Your task to perform on an android device: open app "ZOOM Cloud Meetings" (install if not already installed) and enter user name: "bauxite@icloud.com" and password: "dim" Image 0: 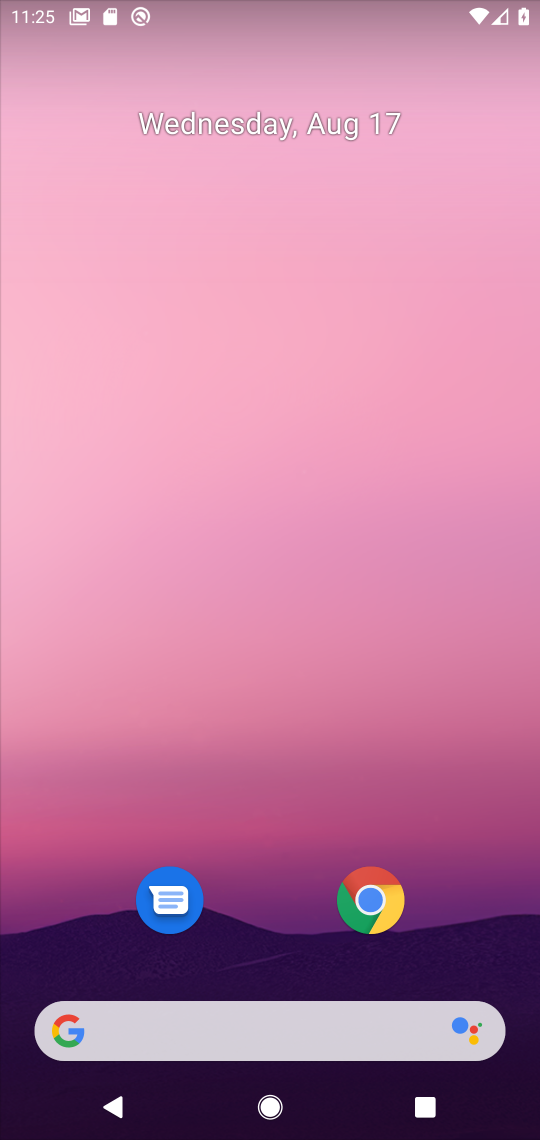
Step 0: drag from (270, 945) to (275, 120)
Your task to perform on an android device: open app "ZOOM Cloud Meetings" (install if not already installed) and enter user name: "bauxite@icloud.com" and password: "dim" Image 1: 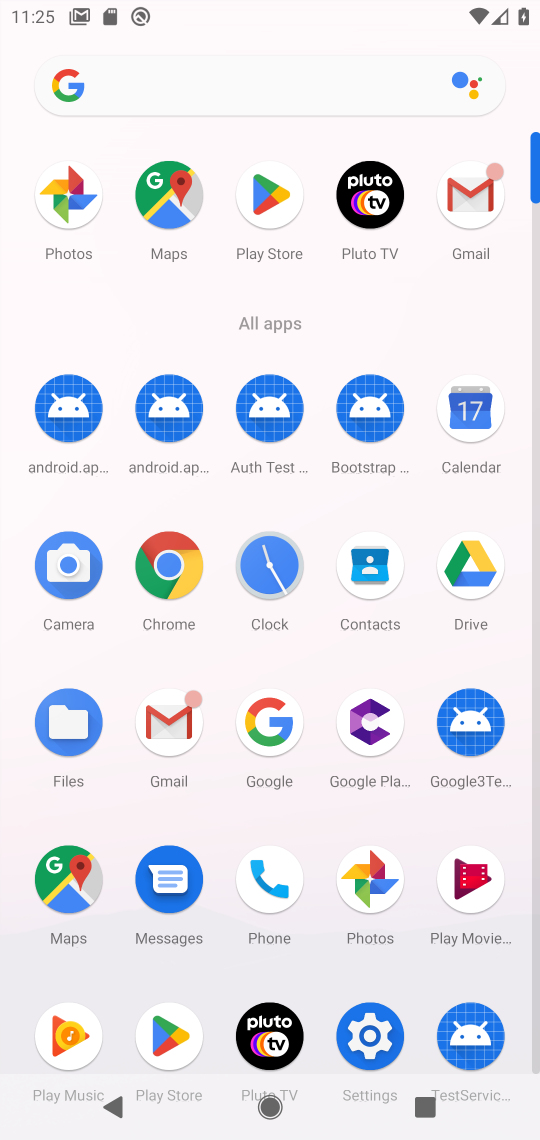
Step 1: click (253, 194)
Your task to perform on an android device: open app "ZOOM Cloud Meetings" (install if not already installed) and enter user name: "bauxite@icloud.com" and password: "dim" Image 2: 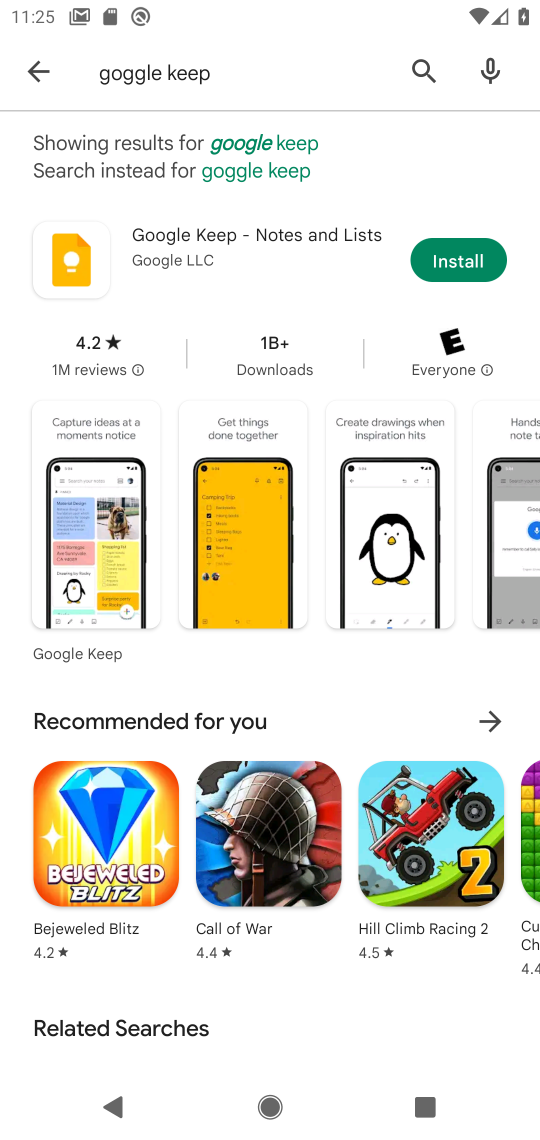
Step 2: click (436, 78)
Your task to perform on an android device: open app "ZOOM Cloud Meetings" (install if not already installed) and enter user name: "bauxite@icloud.com" and password: "dim" Image 3: 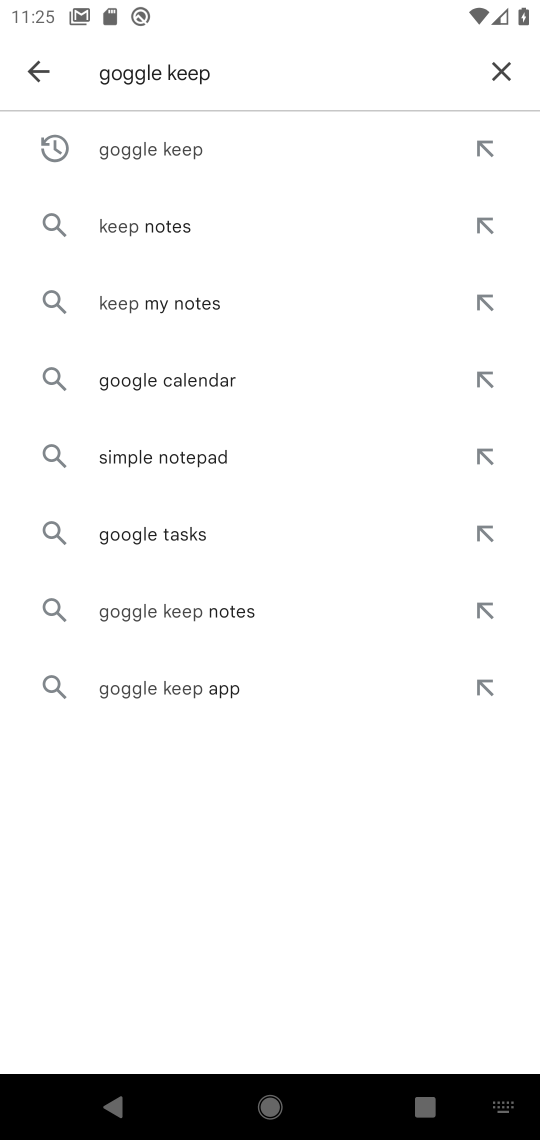
Step 3: click (500, 68)
Your task to perform on an android device: open app "ZOOM Cloud Meetings" (install if not already installed) and enter user name: "bauxite@icloud.com" and password: "dim" Image 4: 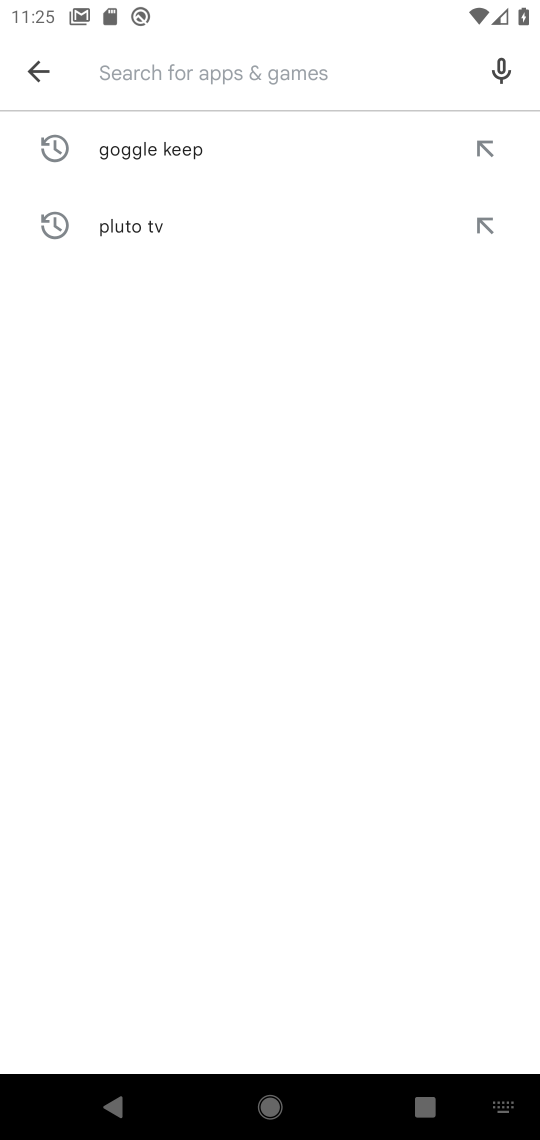
Step 4: click (234, 83)
Your task to perform on an android device: open app "ZOOM Cloud Meetings" (install if not already installed) and enter user name: "bauxite@icloud.com" and password: "dim" Image 5: 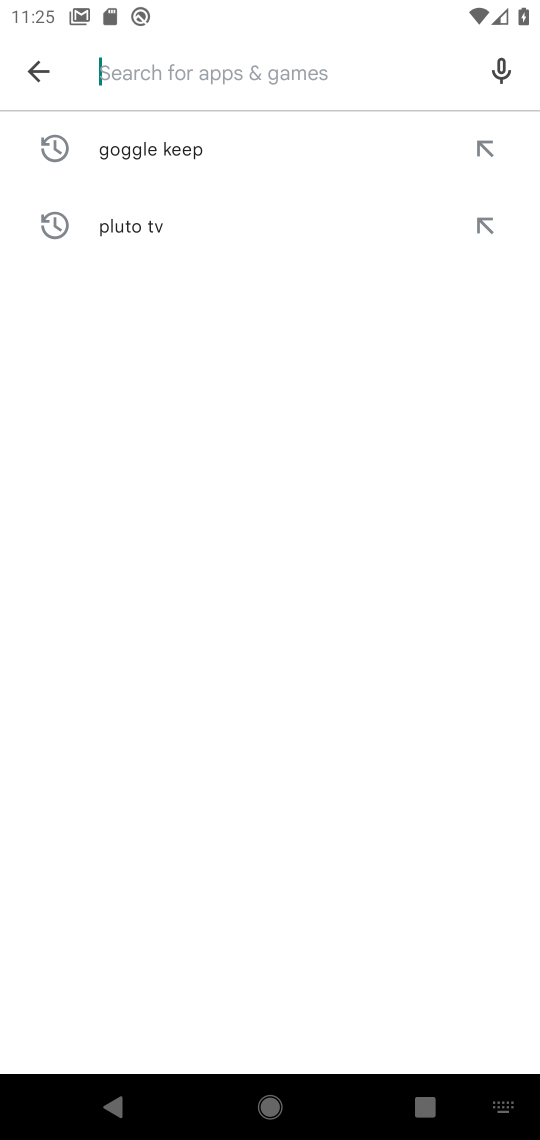
Step 5: type "zoom"
Your task to perform on an android device: open app "ZOOM Cloud Meetings" (install if not already installed) and enter user name: "bauxite@icloud.com" and password: "dim" Image 6: 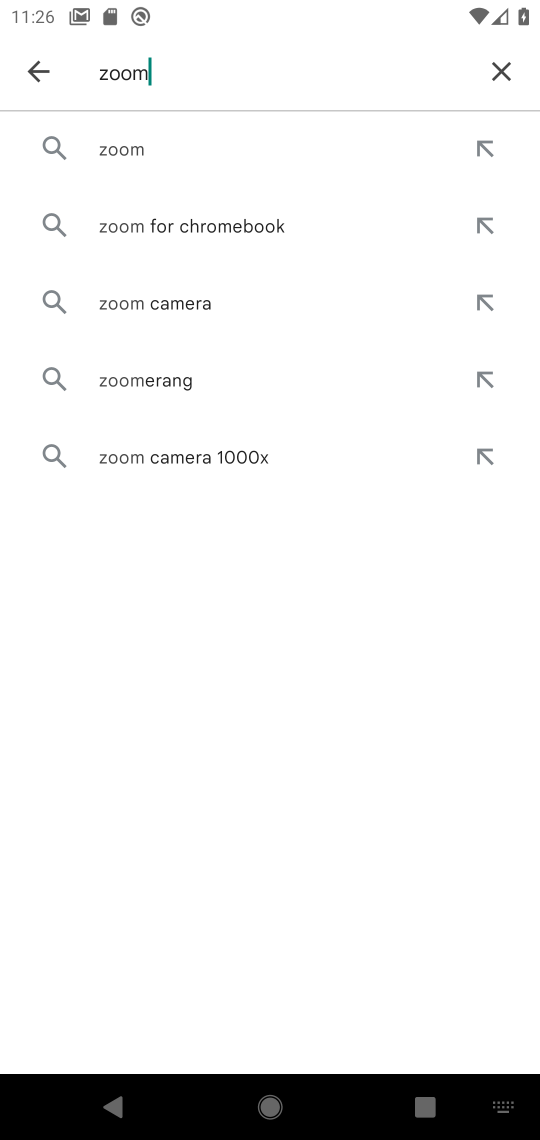
Step 6: click (144, 153)
Your task to perform on an android device: open app "ZOOM Cloud Meetings" (install if not already installed) and enter user name: "bauxite@icloud.com" and password: "dim" Image 7: 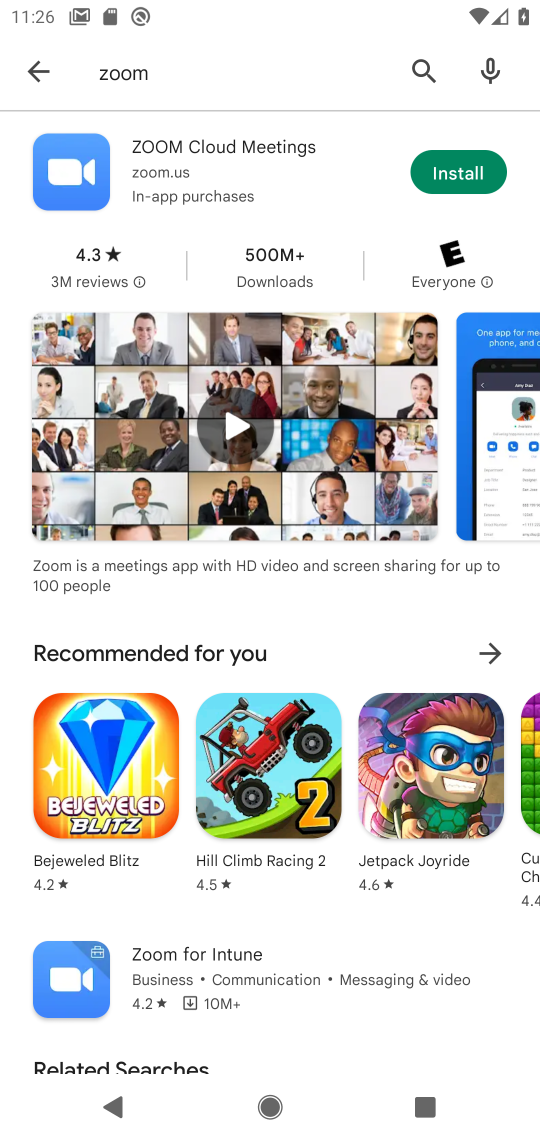
Step 7: click (460, 167)
Your task to perform on an android device: open app "ZOOM Cloud Meetings" (install if not already installed) and enter user name: "bauxite@icloud.com" and password: "dim" Image 8: 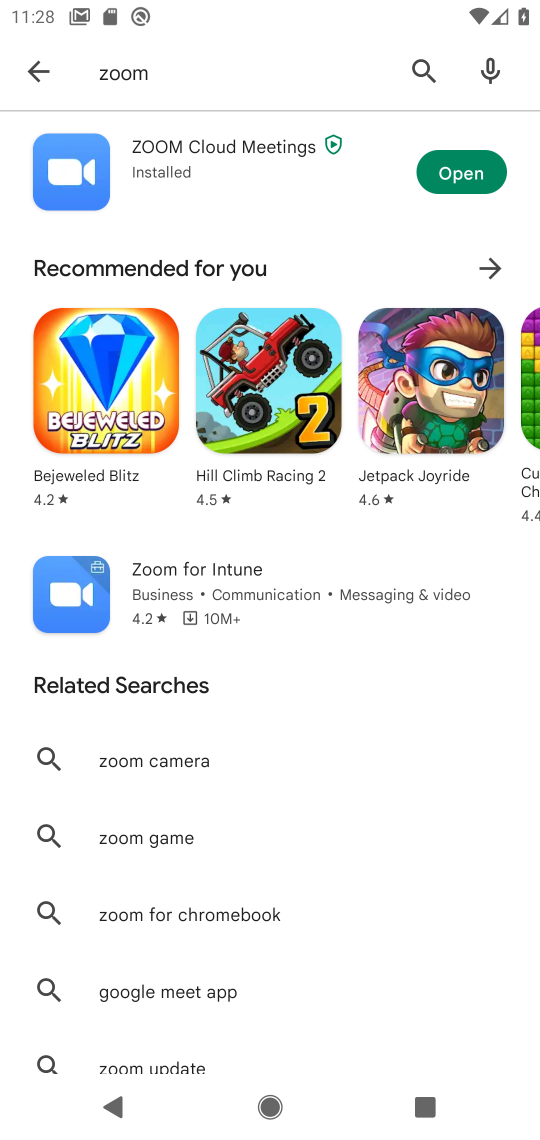
Step 8: click (473, 157)
Your task to perform on an android device: open app "ZOOM Cloud Meetings" (install if not already installed) and enter user name: "bauxite@icloud.com" and password: "dim" Image 9: 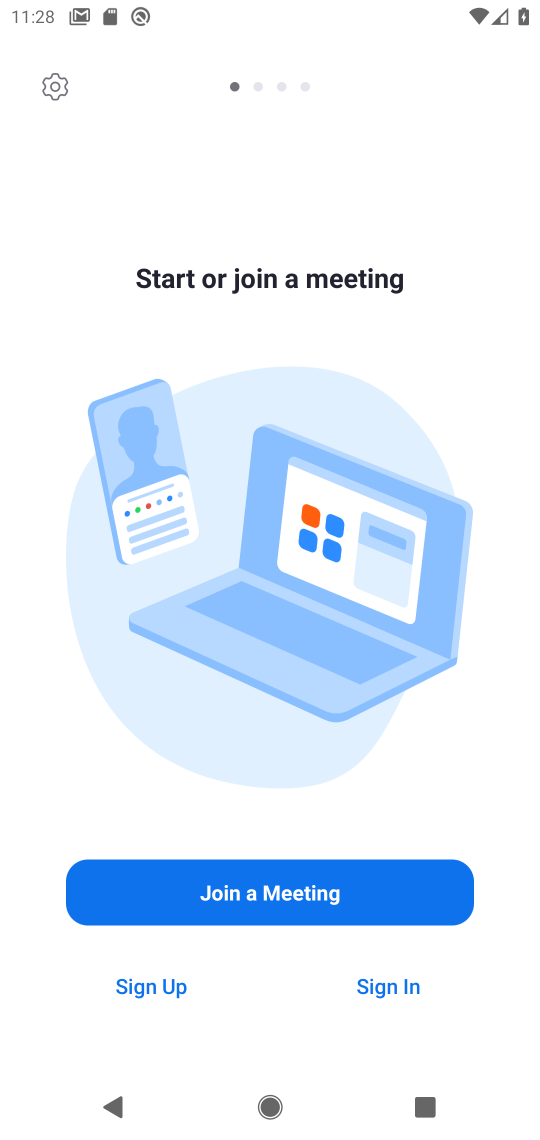
Step 9: click (375, 979)
Your task to perform on an android device: open app "ZOOM Cloud Meetings" (install if not already installed) and enter user name: "bauxite@icloud.com" and password: "dim" Image 10: 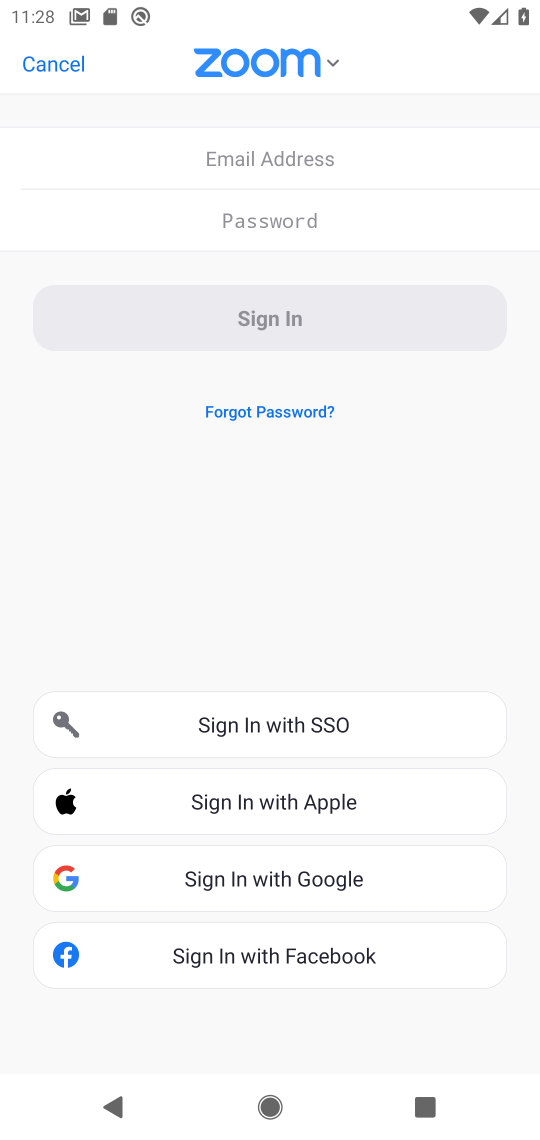
Step 10: click (276, 157)
Your task to perform on an android device: open app "ZOOM Cloud Meetings" (install if not already installed) and enter user name: "bauxite@icloud.com" and password: "dim" Image 11: 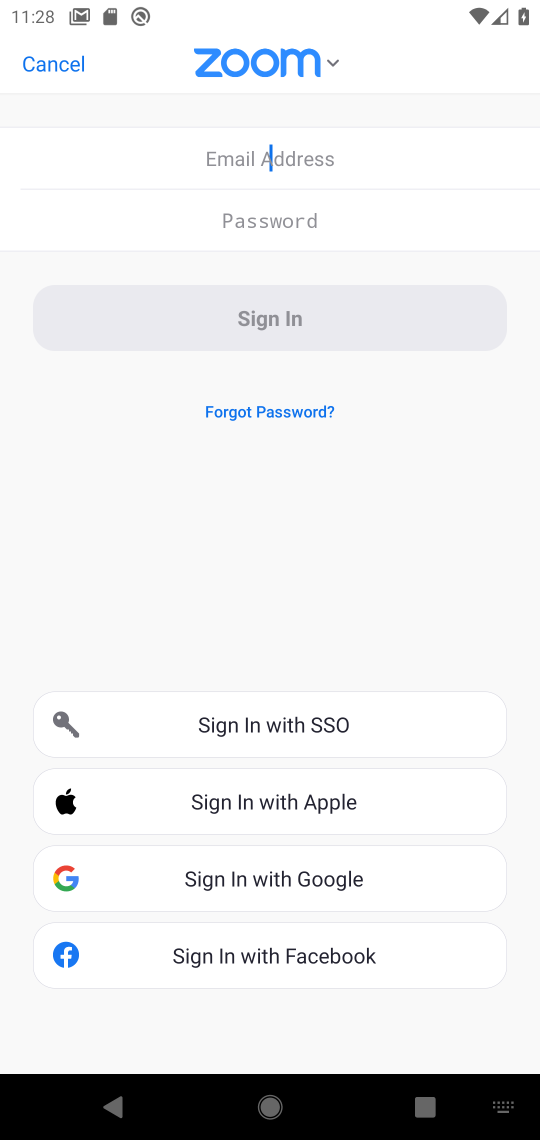
Step 11: click (254, 149)
Your task to perform on an android device: open app "ZOOM Cloud Meetings" (install if not already installed) and enter user name: "bauxite@icloud.com" and password: "dim" Image 12: 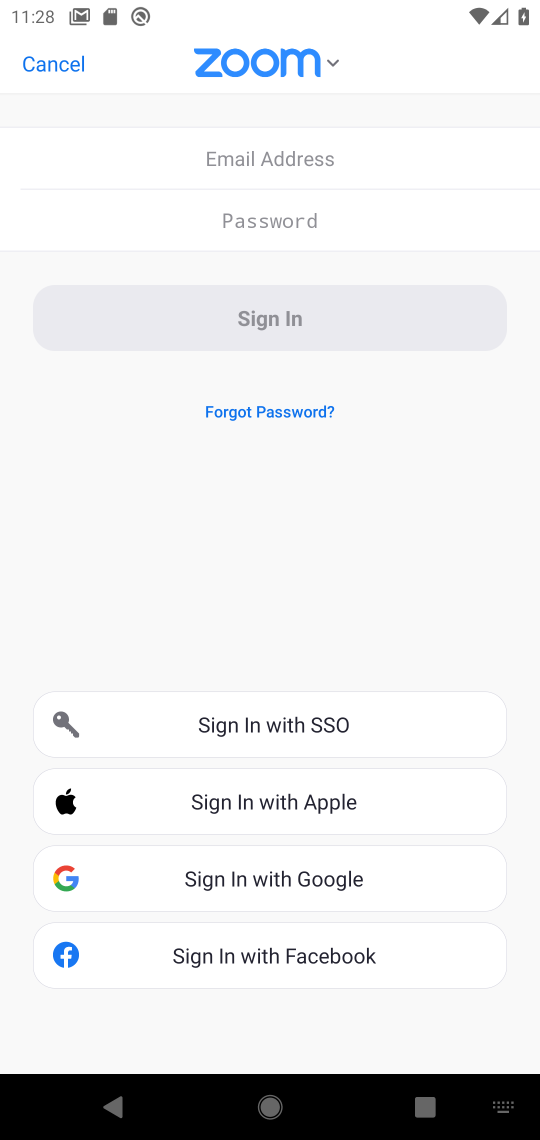
Step 12: type "bauxite@icloud.com"
Your task to perform on an android device: open app "ZOOM Cloud Meetings" (install if not already installed) and enter user name: "bauxite@icloud.com" and password: "dim" Image 13: 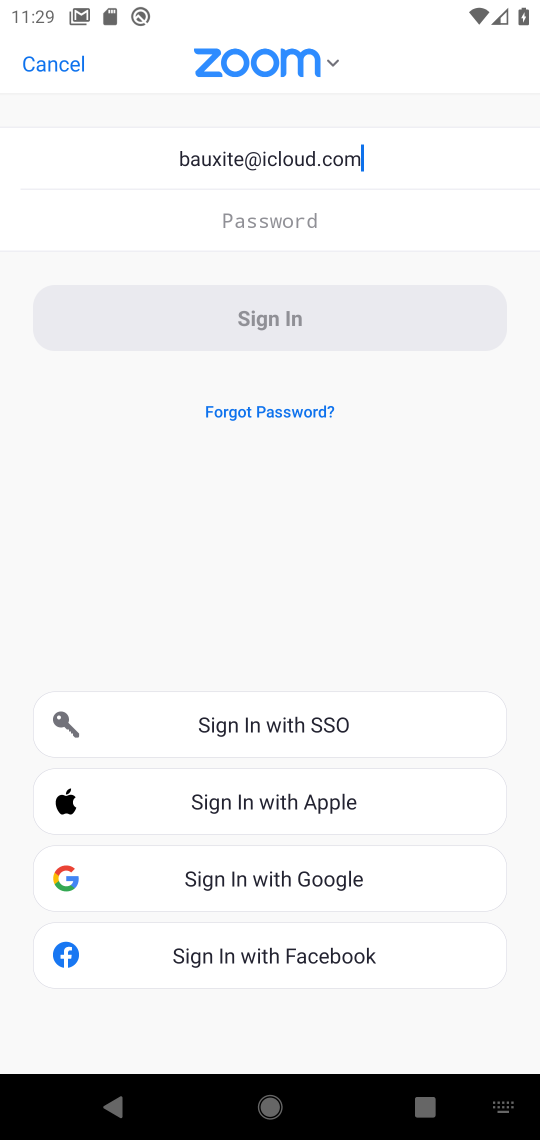
Step 13: click (273, 222)
Your task to perform on an android device: open app "ZOOM Cloud Meetings" (install if not already installed) and enter user name: "bauxite@icloud.com" and password: "dim" Image 14: 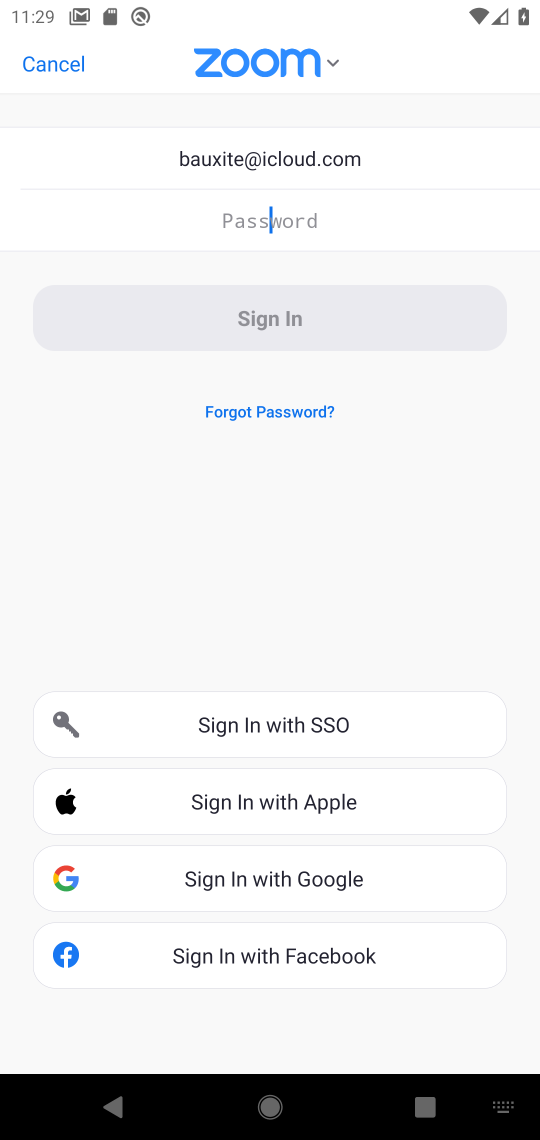
Step 14: type "dim"
Your task to perform on an android device: open app "ZOOM Cloud Meetings" (install if not already installed) and enter user name: "bauxite@icloud.com" and password: "dim" Image 15: 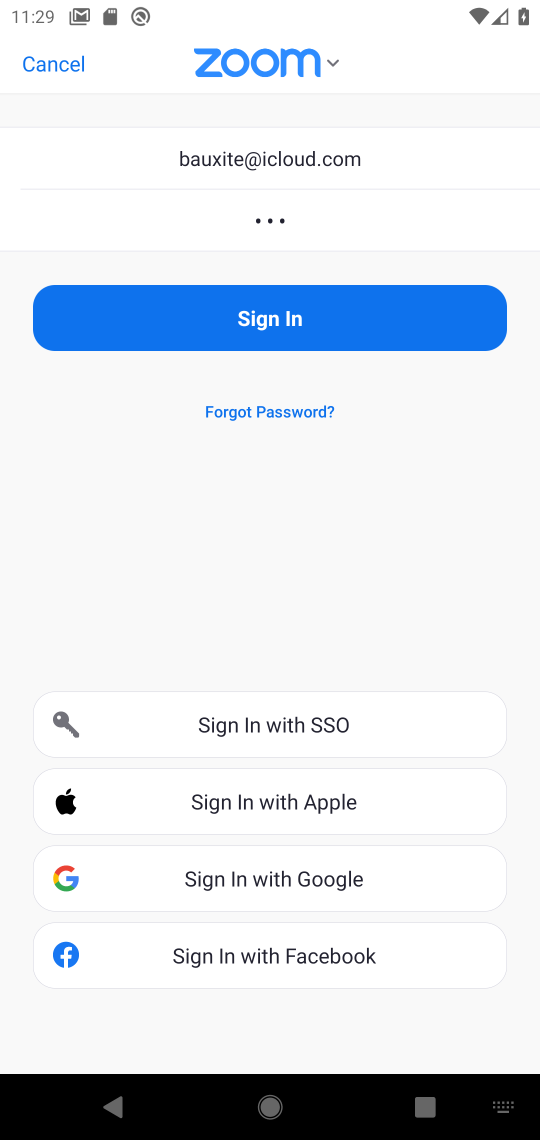
Step 15: task complete